Your task to perform on an android device: Search for a new blush Image 0: 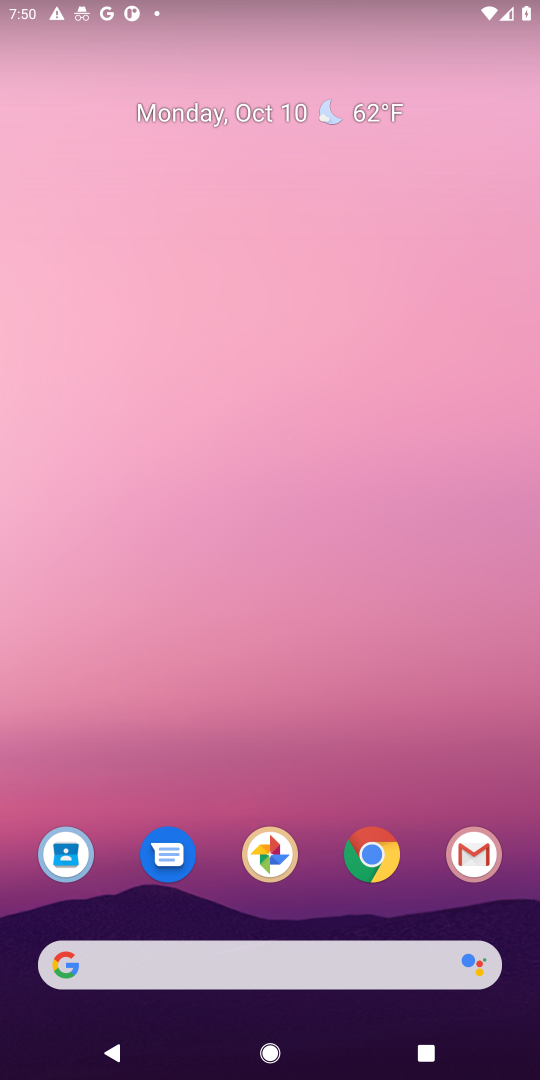
Step 0: click (370, 858)
Your task to perform on an android device: Search for a new blush Image 1: 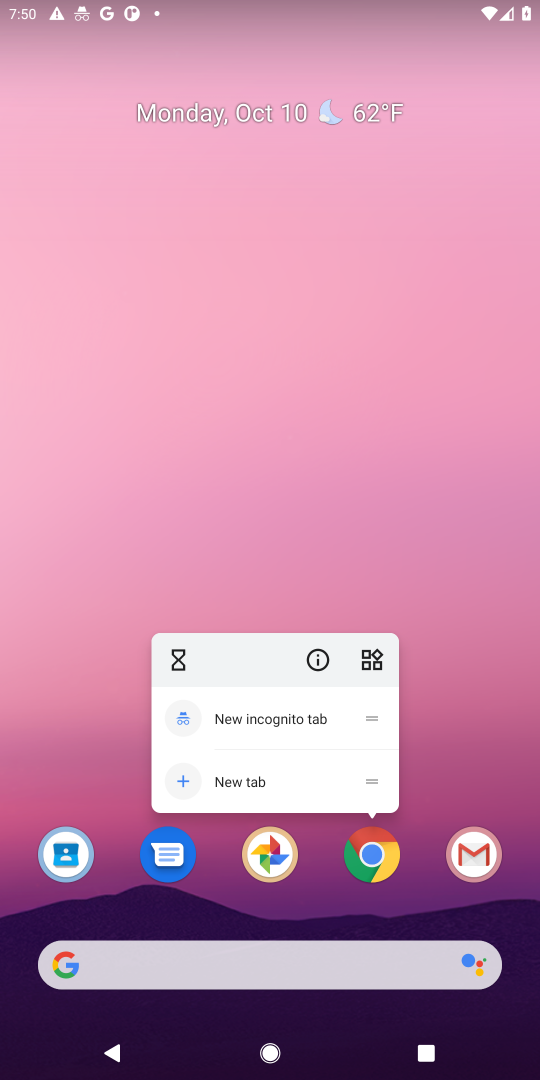
Step 1: click (370, 858)
Your task to perform on an android device: Search for a new blush Image 2: 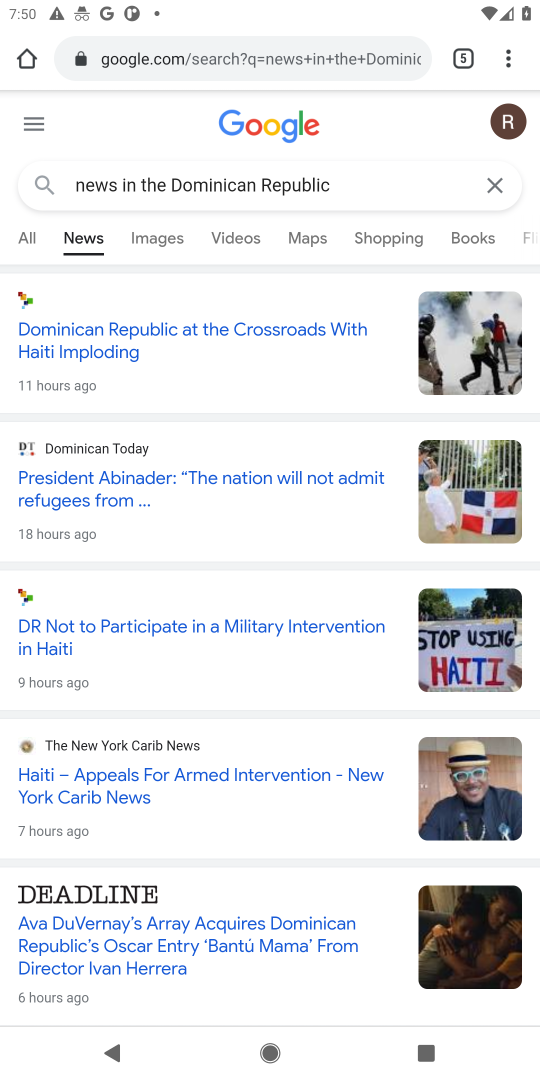
Step 2: click (345, 55)
Your task to perform on an android device: Search for a new blush Image 3: 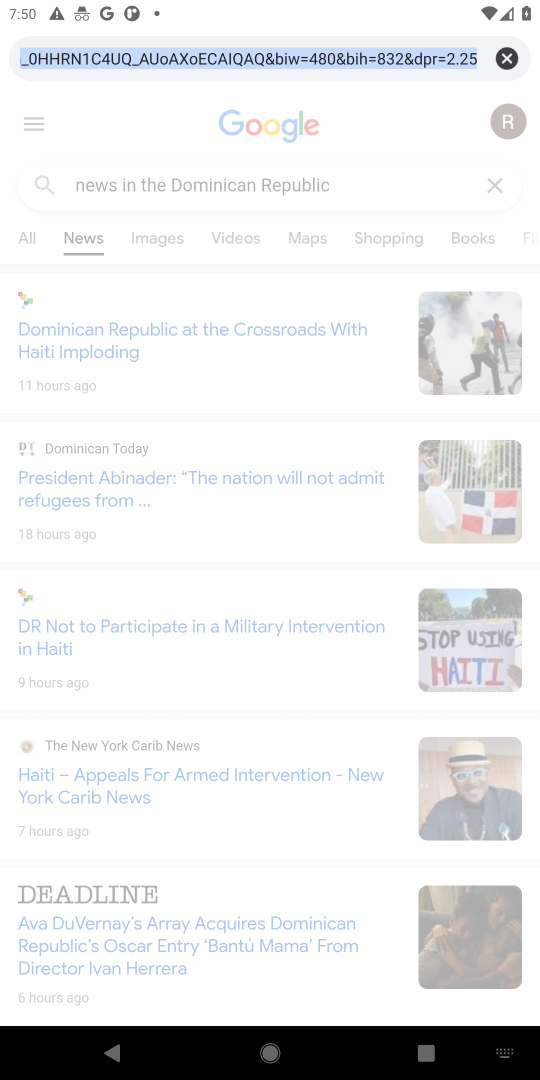
Step 3: click (510, 55)
Your task to perform on an android device: Search for a new blush Image 4: 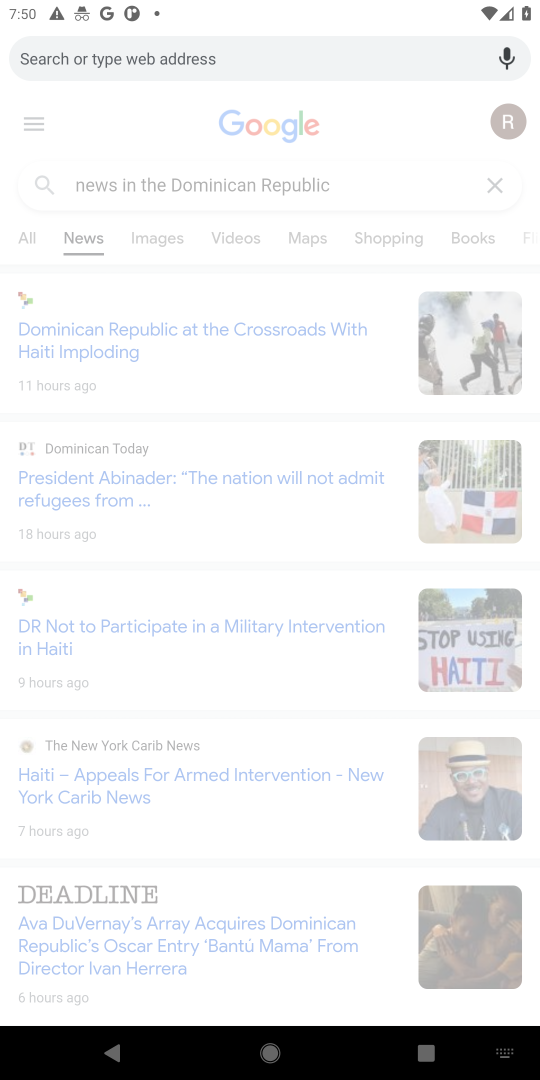
Step 4: type "new blush"
Your task to perform on an android device: Search for a new blush Image 5: 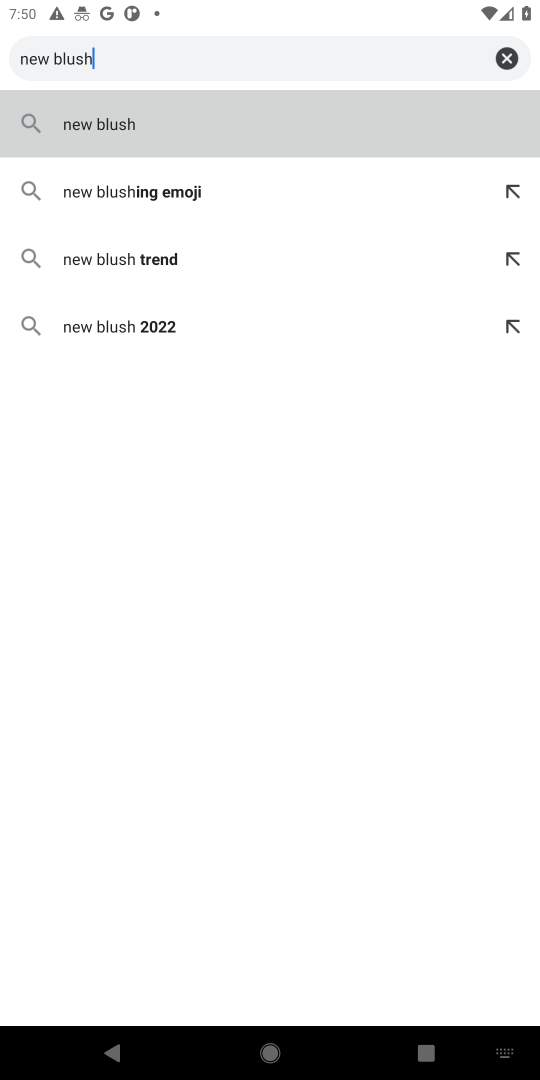
Step 5: click (80, 127)
Your task to perform on an android device: Search for a new blush Image 6: 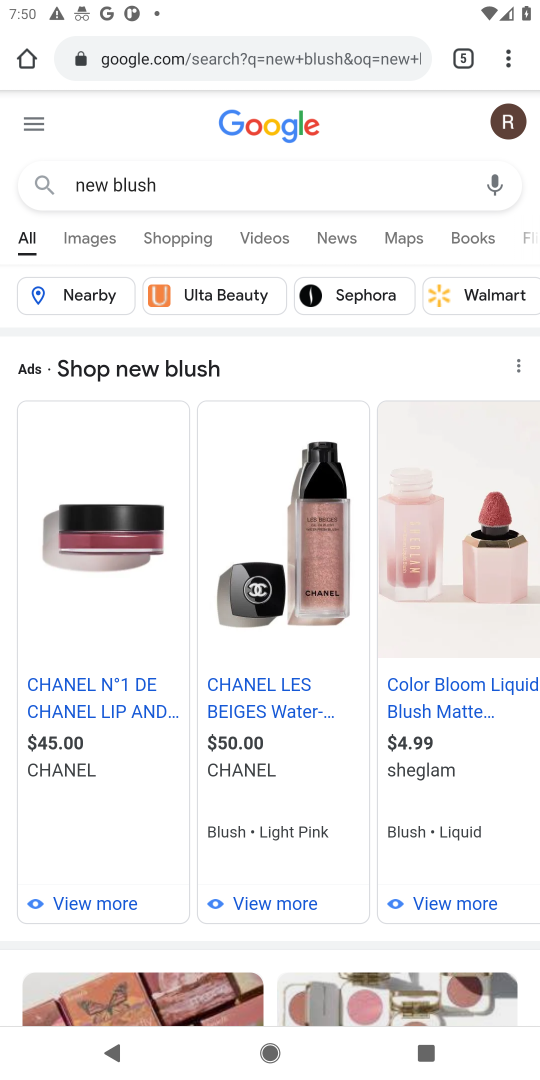
Step 6: task complete